Your task to perform on an android device: Open Wikipedia Image 0: 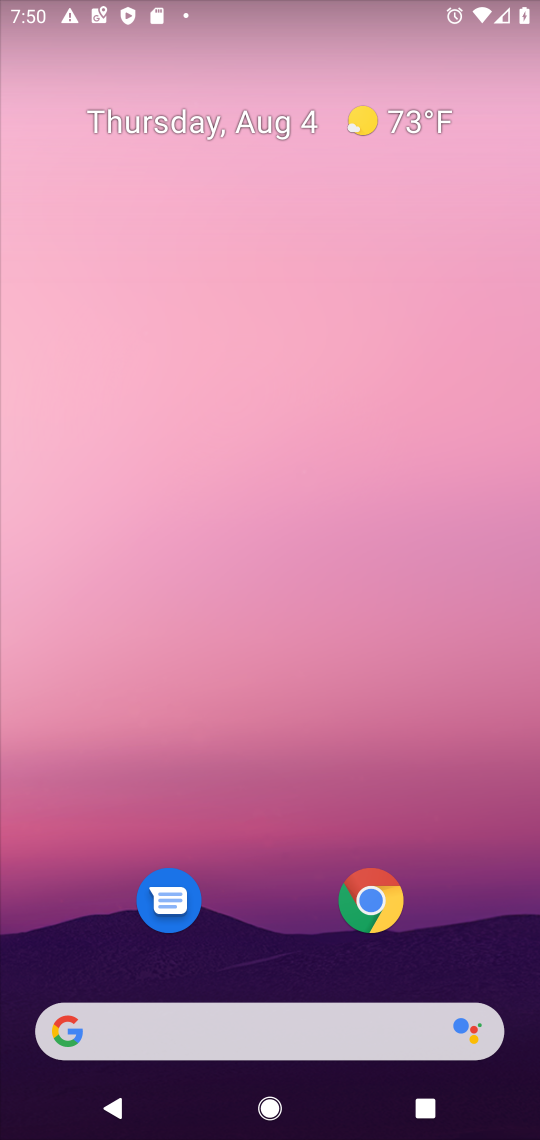
Step 0: click (372, 904)
Your task to perform on an android device: Open Wikipedia Image 1: 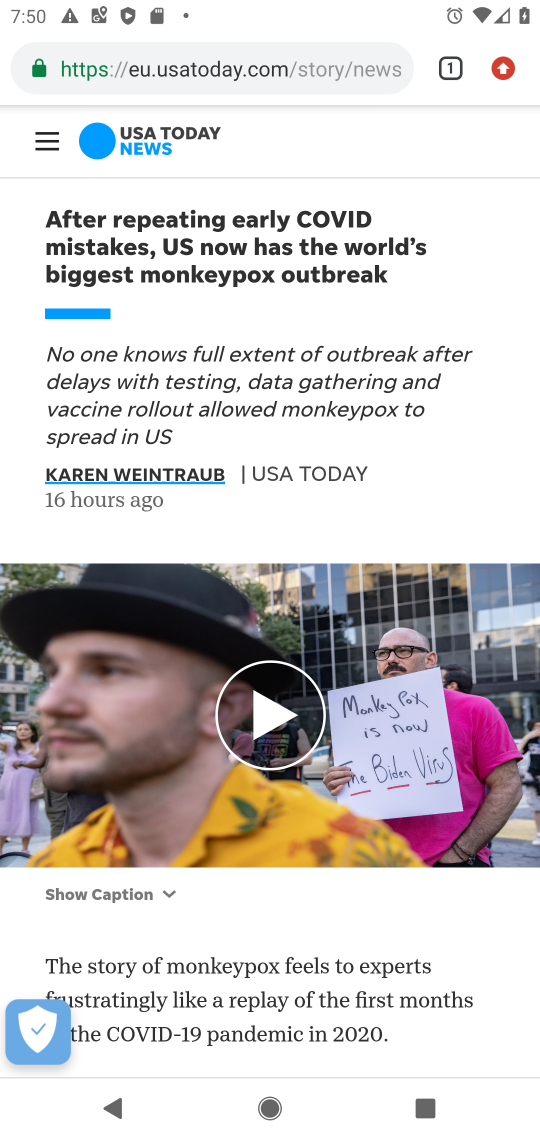
Step 1: click (332, 75)
Your task to perform on an android device: Open Wikipedia Image 2: 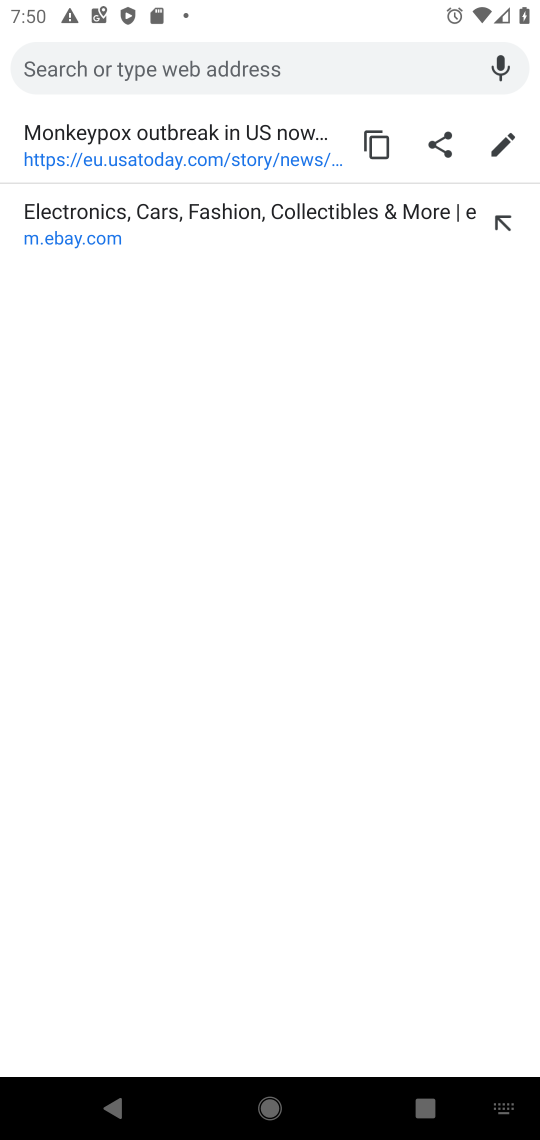
Step 2: type "Wikipedia"
Your task to perform on an android device: Open Wikipedia Image 3: 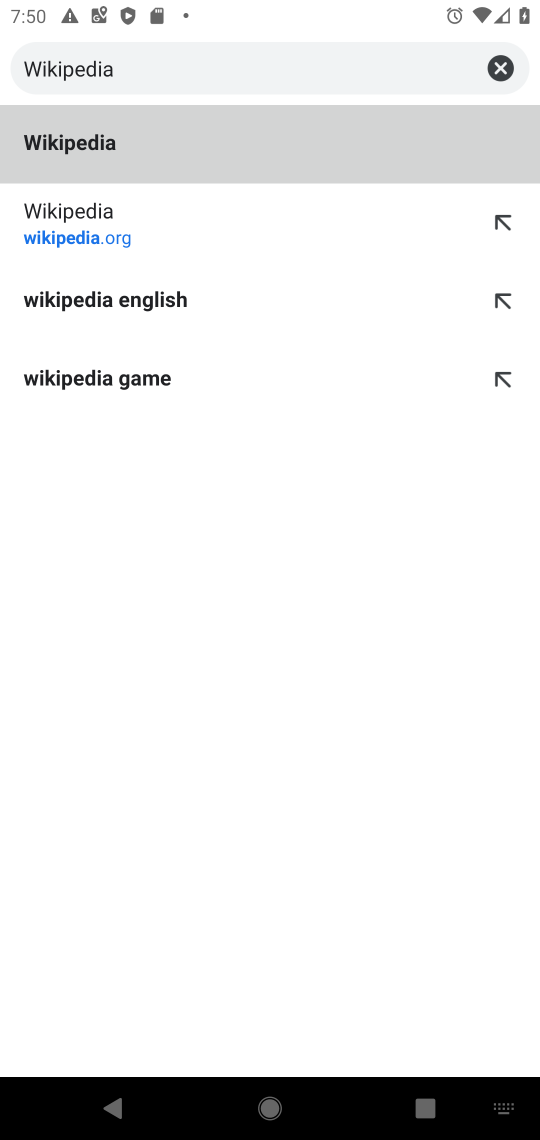
Step 3: click (72, 215)
Your task to perform on an android device: Open Wikipedia Image 4: 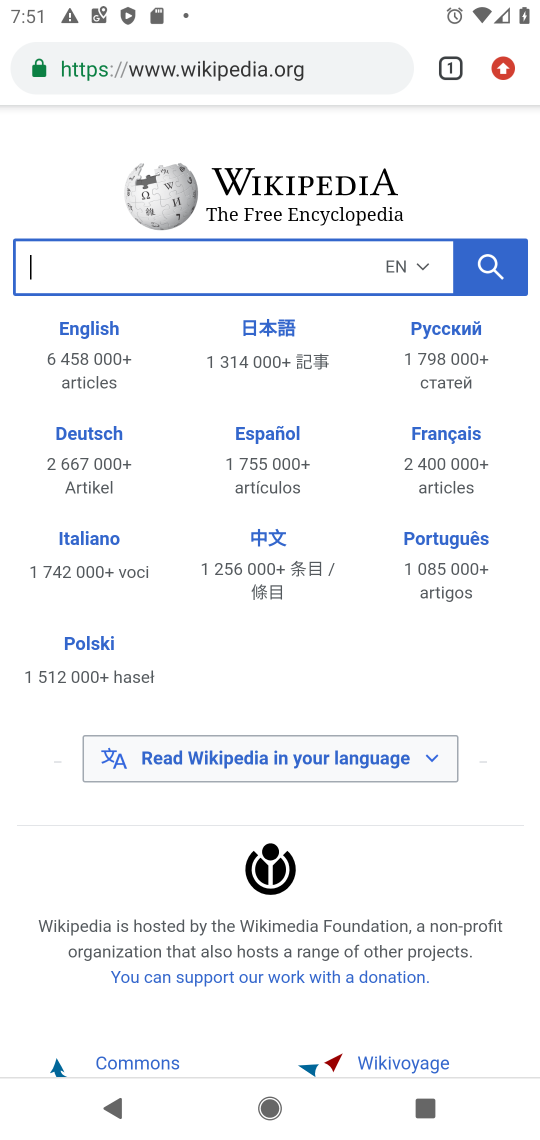
Step 4: task complete